Your task to perform on an android device: snooze an email in the gmail app Image 0: 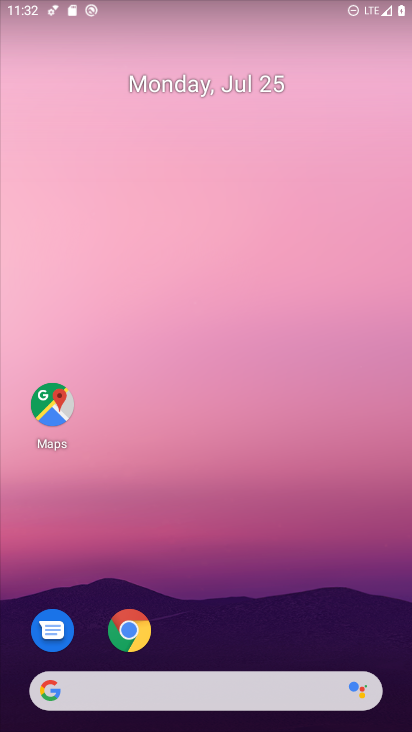
Step 0: drag from (246, 662) to (234, 3)
Your task to perform on an android device: snooze an email in the gmail app Image 1: 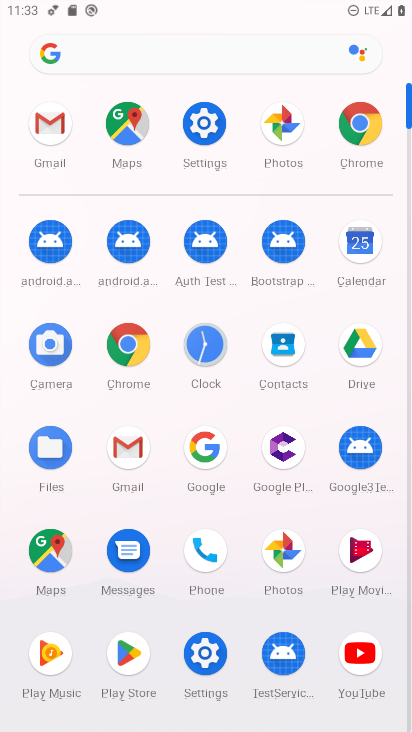
Step 1: click (46, 133)
Your task to perform on an android device: snooze an email in the gmail app Image 2: 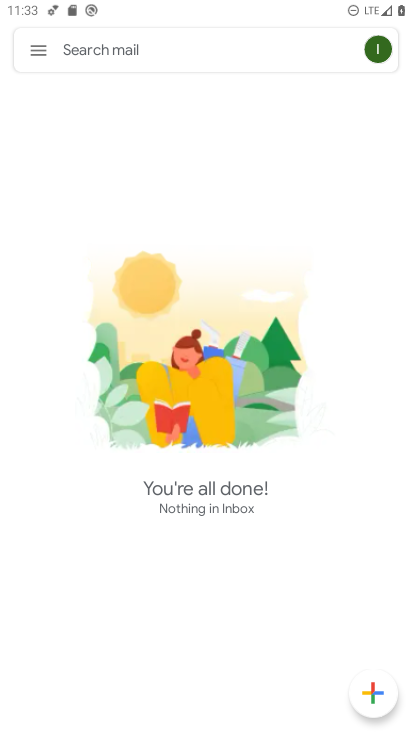
Step 2: click (39, 51)
Your task to perform on an android device: snooze an email in the gmail app Image 3: 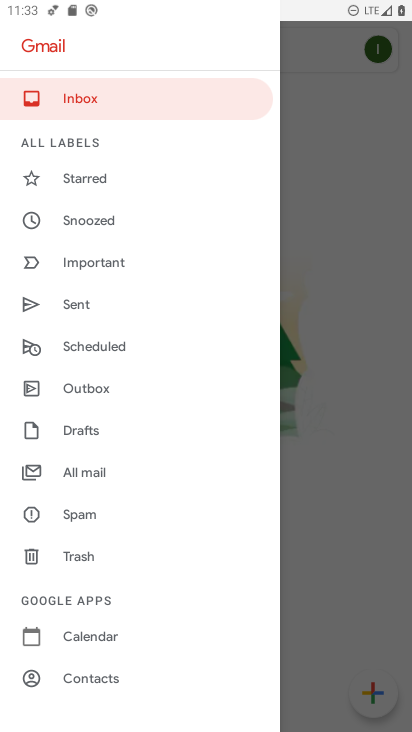
Step 3: click (86, 463)
Your task to perform on an android device: snooze an email in the gmail app Image 4: 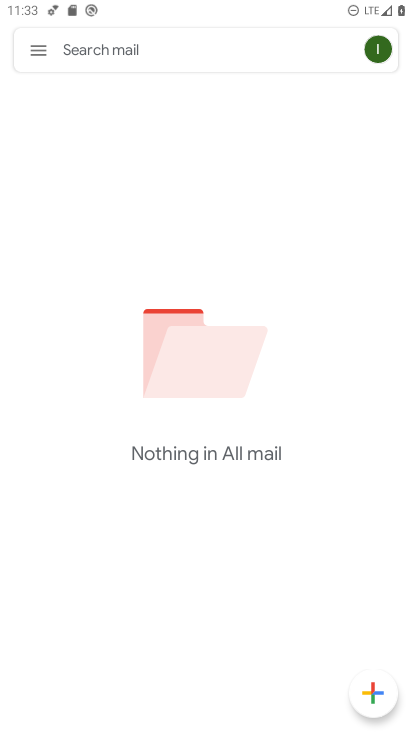
Step 4: task complete